Your task to perform on an android device: turn off priority inbox in the gmail app Image 0: 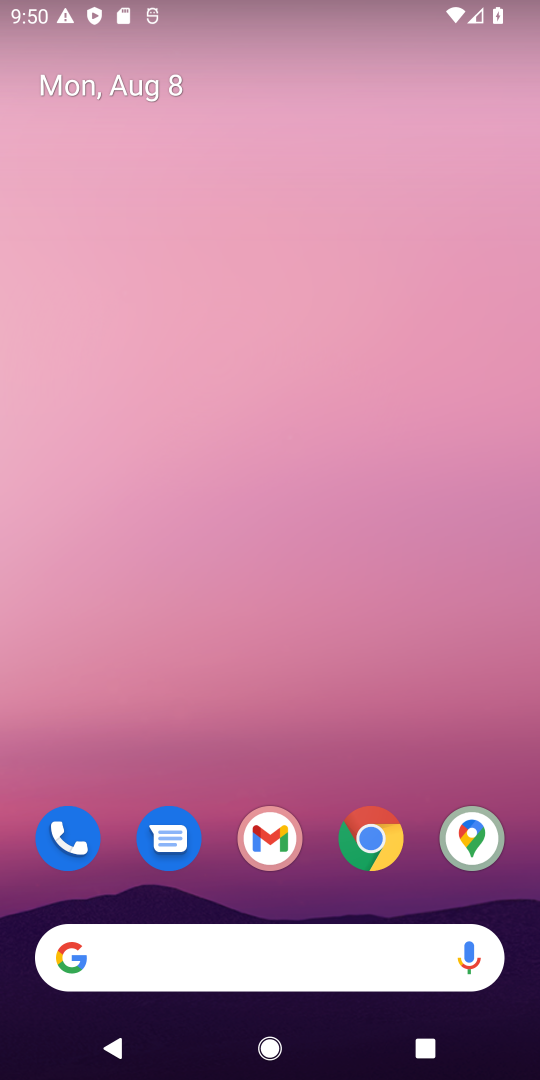
Step 0: press home button
Your task to perform on an android device: turn off priority inbox in the gmail app Image 1: 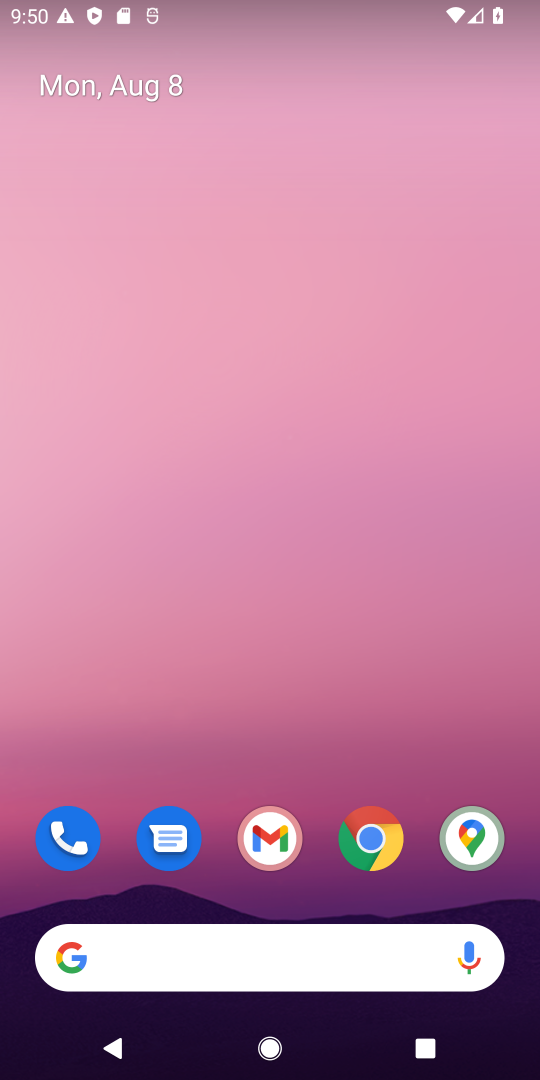
Step 1: drag from (346, 886) to (345, 151)
Your task to perform on an android device: turn off priority inbox in the gmail app Image 2: 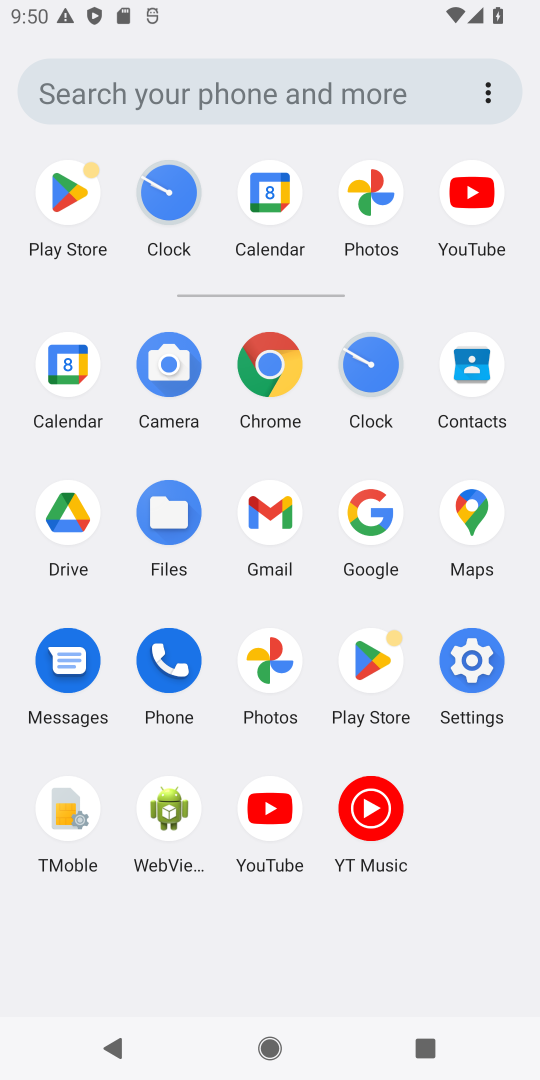
Step 2: click (272, 515)
Your task to perform on an android device: turn off priority inbox in the gmail app Image 3: 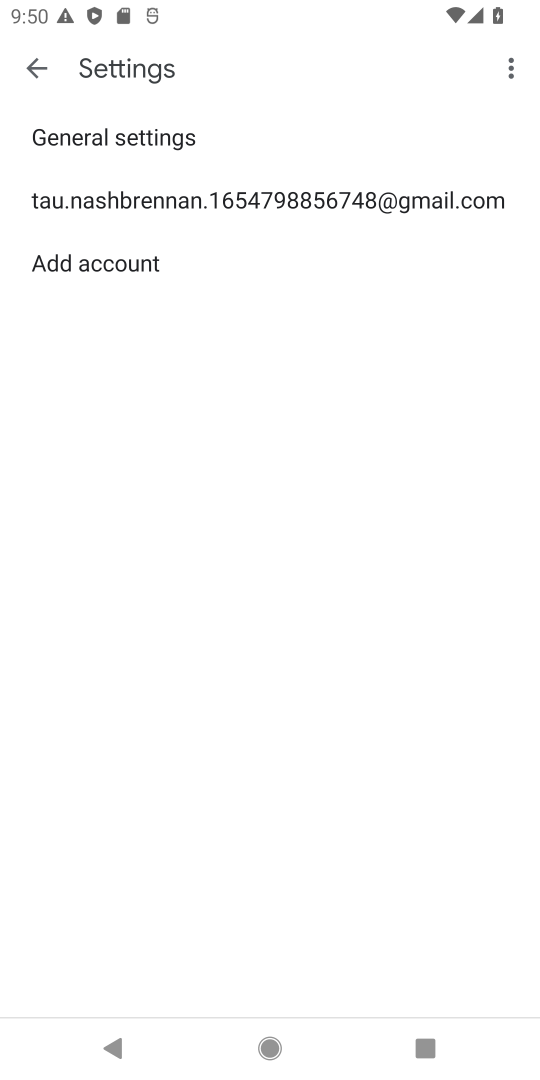
Step 3: click (233, 199)
Your task to perform on an android device: turn off priority inbox in the gmail app Image 4: 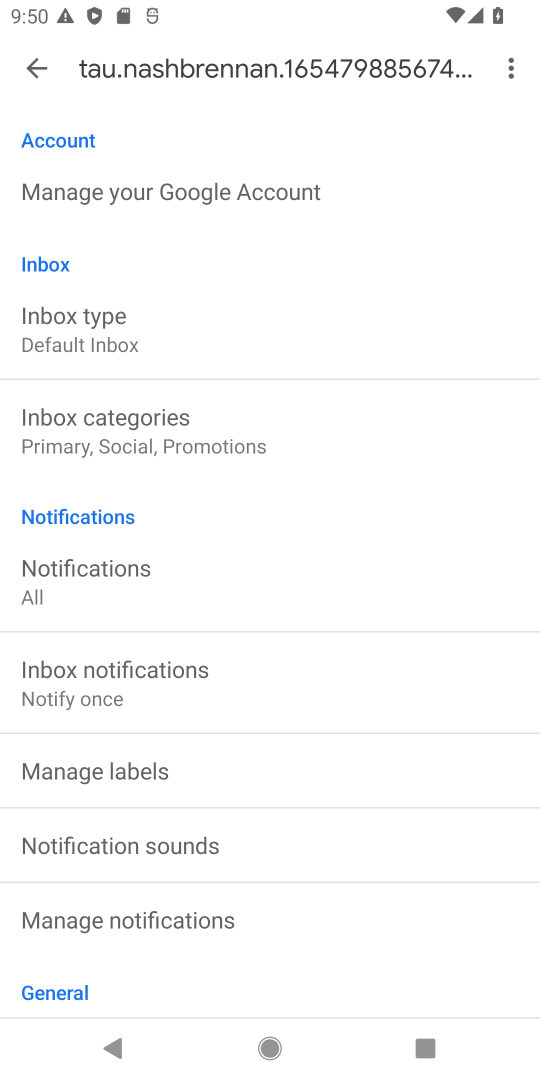
Step 4: click (95, 335)
Your task to perform on an android device: turn off priority inbox in the gmail app Image 5: 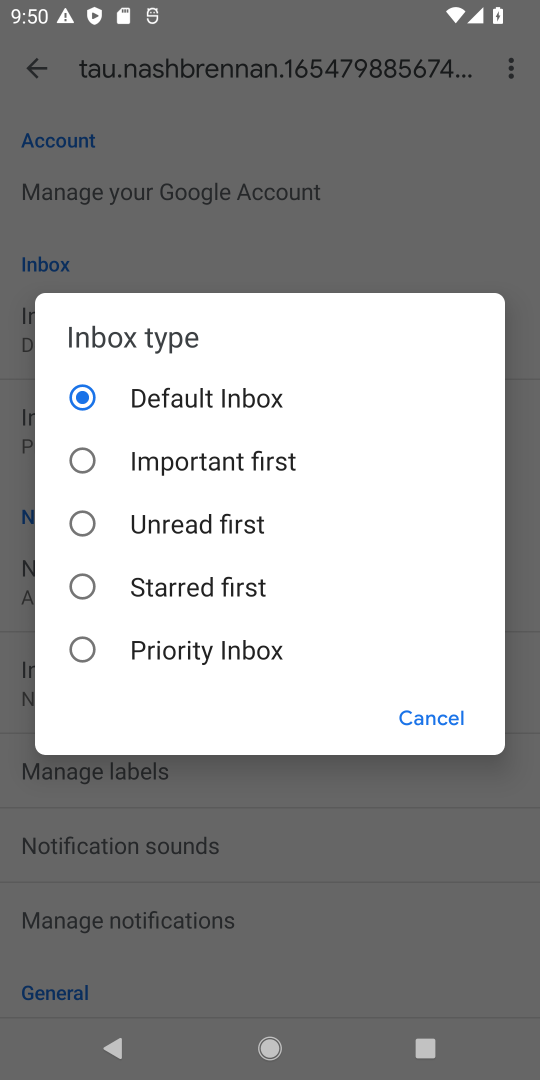
Step 5: task complete